Your task to perform on an android device: Open eBay Image 0: 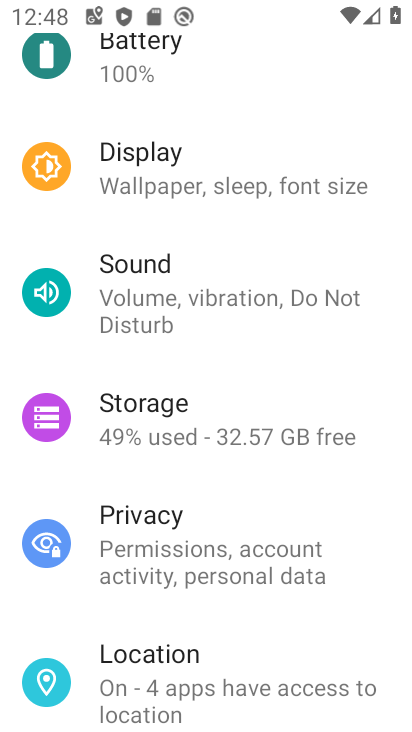
Step 0: press home button
Your task to perform on an android device: Open eBay Image 1: 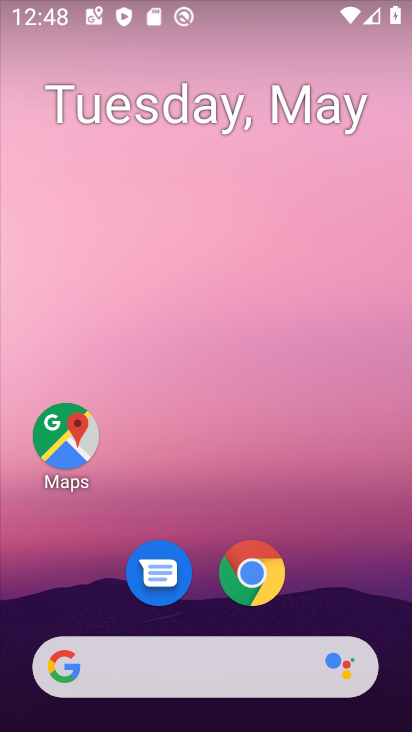
Step 1: click (281, 577)
Your task to perform on an android device: Open eBay Image 2: 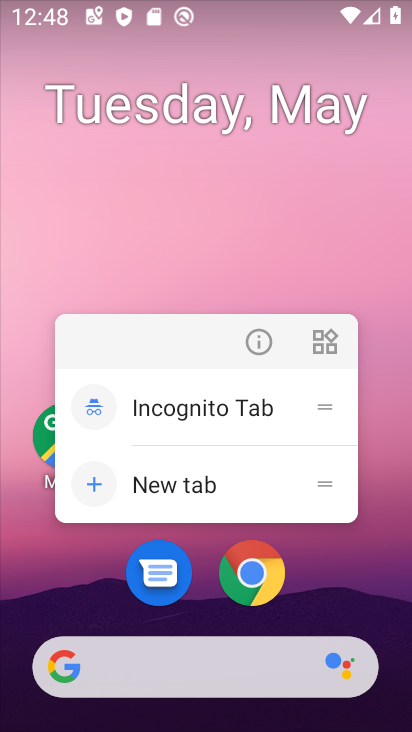
Step 2: click (282, 589)
Your task to perform on an android device: Open eBay Image 3: 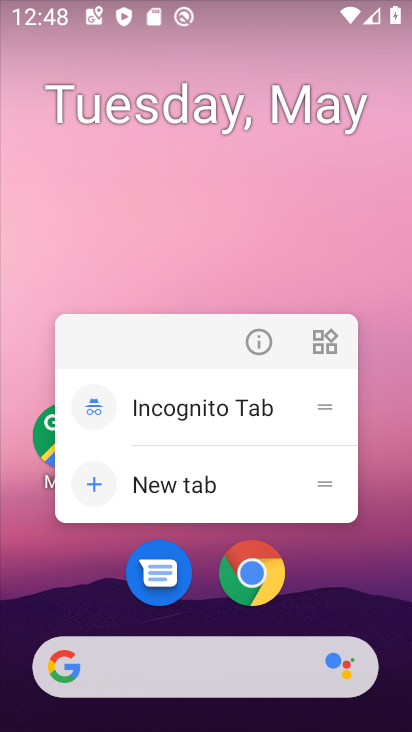
Step 3: click (264, 578)
Your task to perform on an android device: Open eBay Image 4: 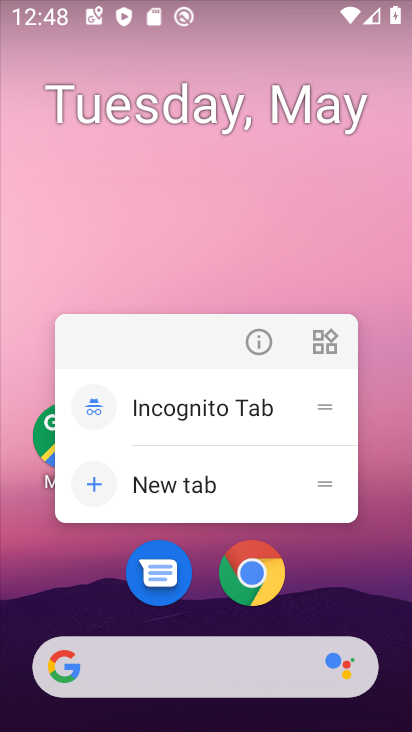
Step 4: click (280, 560)
Your task to perform on an android device: Open eBay Image 5: 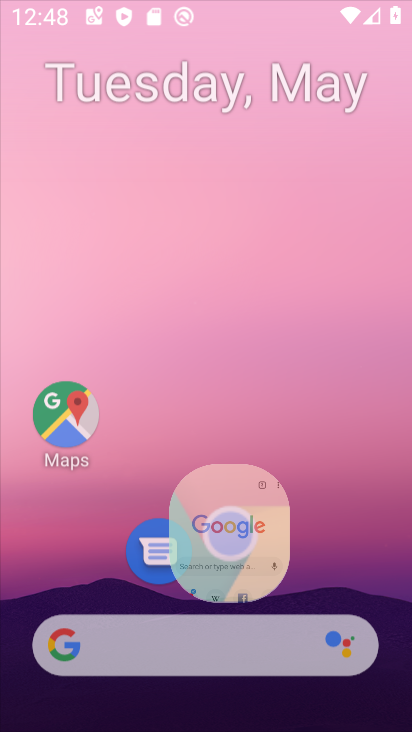
Step 5: click (309, 537)
Your task to perform on an android device: Open eBay Image 6: 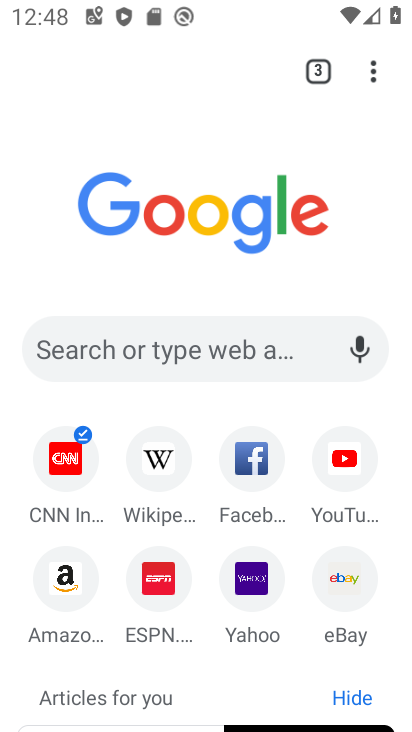
Step 6: click (363, 573)
Your task to perform on an android device: Open eBay Image 7: 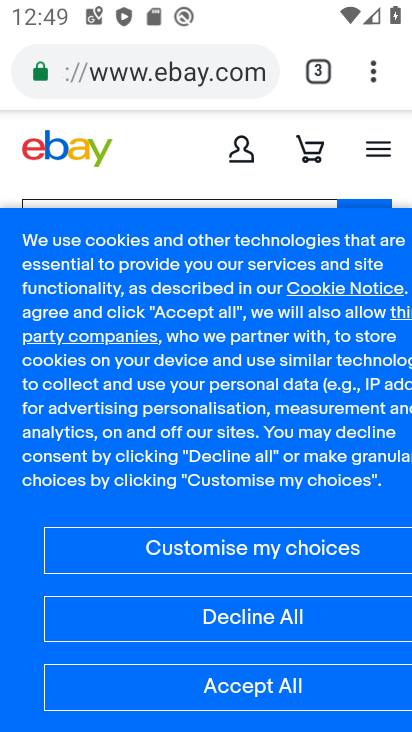
Step 7: task complete